Your task to perform on an android device: What's on my calendar tomorrow? Image 0: 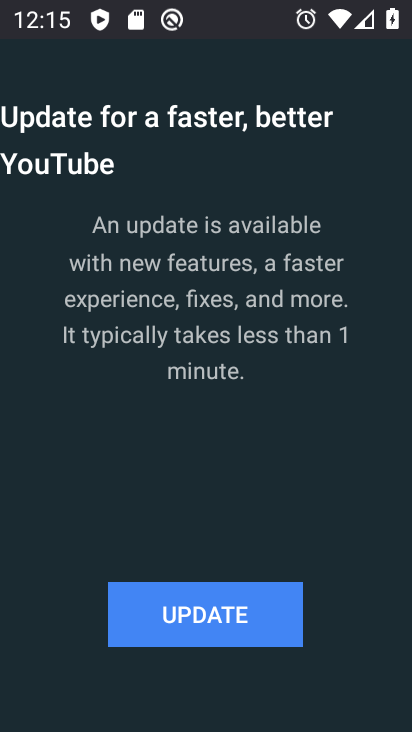
Step 0: press home button
Your task to perform on an android device: What's on my calendar tomorrow? Image 1: 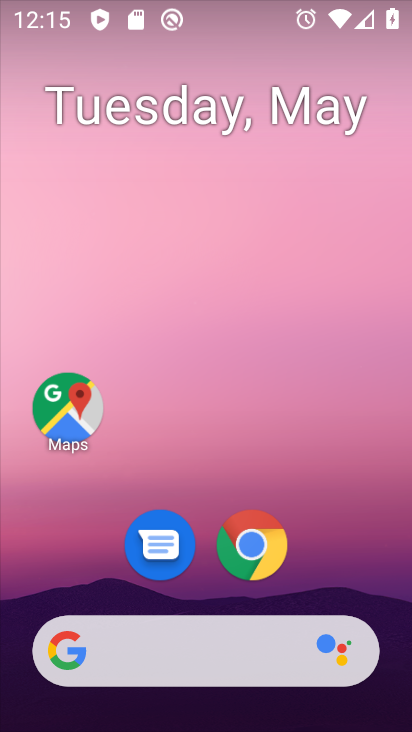
Step 1: drag from (349, 551) to (357, 228)
Your task to perform on an android device: What's on my calendar tomorrow? Image 2: 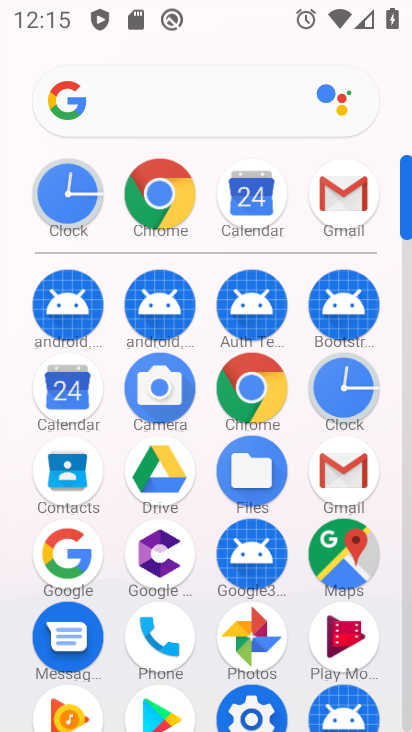
Step 2: click (240, 209)
Your task to perform on an android device: What's on my calendar tomorrow? Image 3: 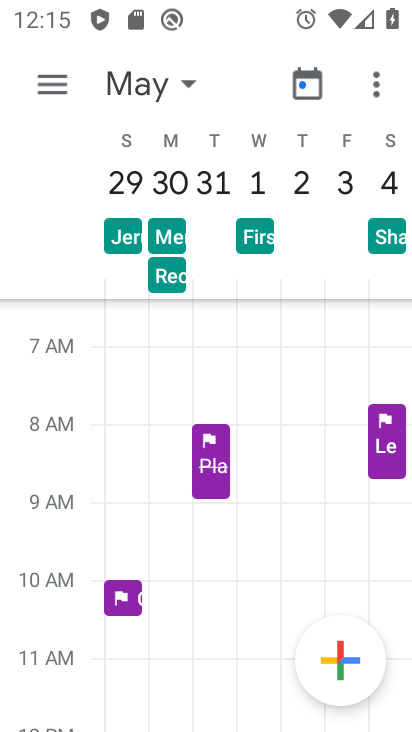
Step 3: task complete